Your task to perform on an android device: turn off javascript in the chrome app Image 0: 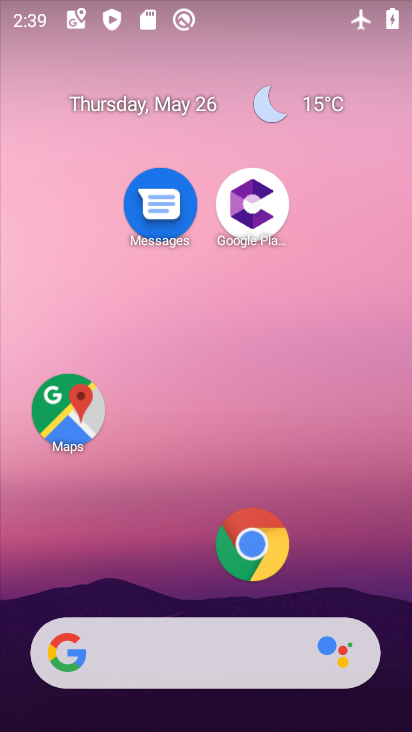
Step 0: click (271, 562)
Your task to perform on an android device: turn off javascript in the chrome app Image 1: 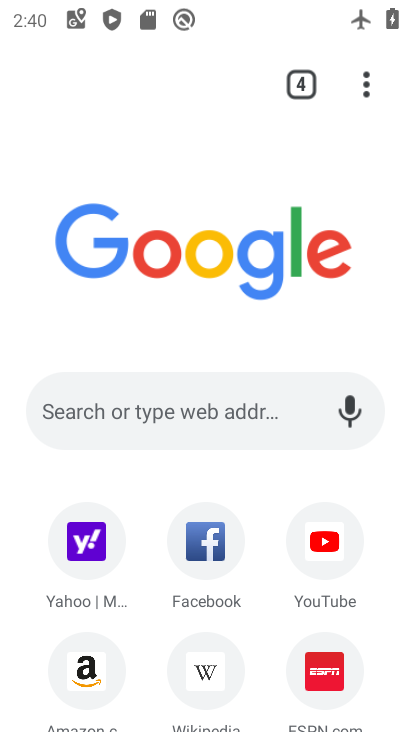
Step 1: click (385, 78)
Your task to perform on an android device: turn off javascript in the chrome app Image 2: 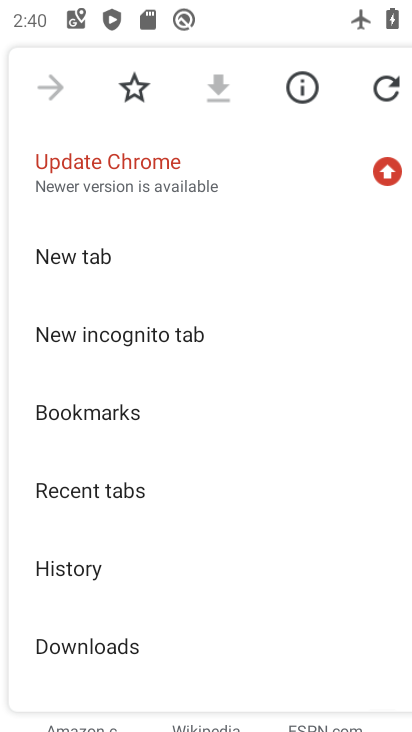
Step 2: drag from (123, 647) to (167, 223)
Your task to perform on an android device: turn off javascript in the chrome app Image 3: 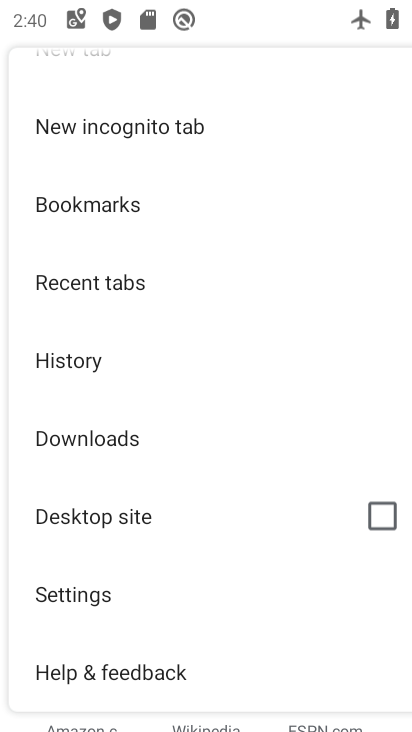
Step 3: click (80, 594)
Your task to perform on an android device: turn off javascript in the chrome app Image 4: 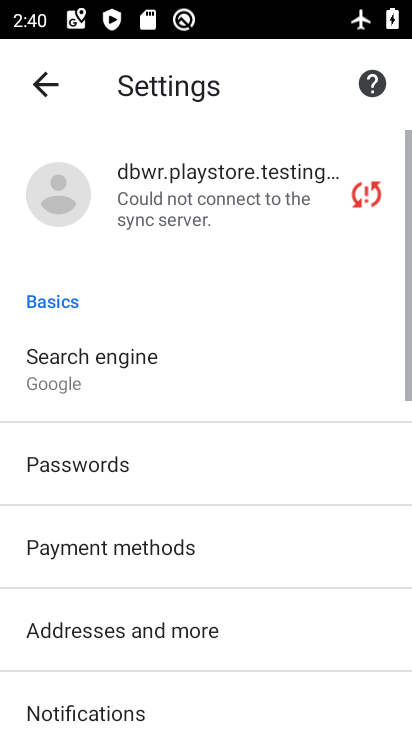
Step 4: drag from (80, 594) to (160, 143)
Your task to perform on an android device: turn off javascript in the chrome app Image 5: 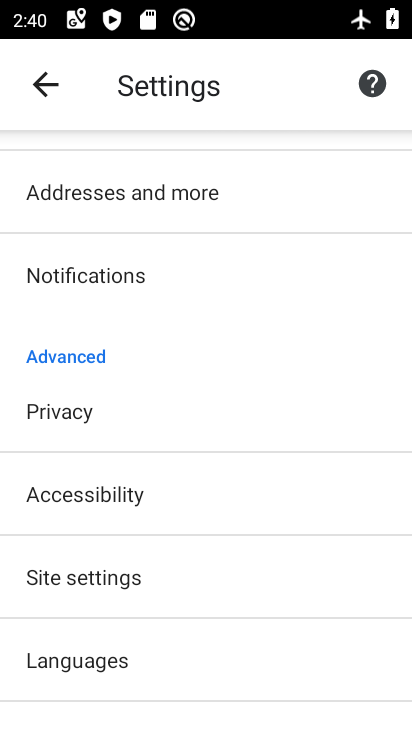
Step 5: click (92, 586)
Your task to perform on an android device: turn off javascript in the chrome app Image 6: 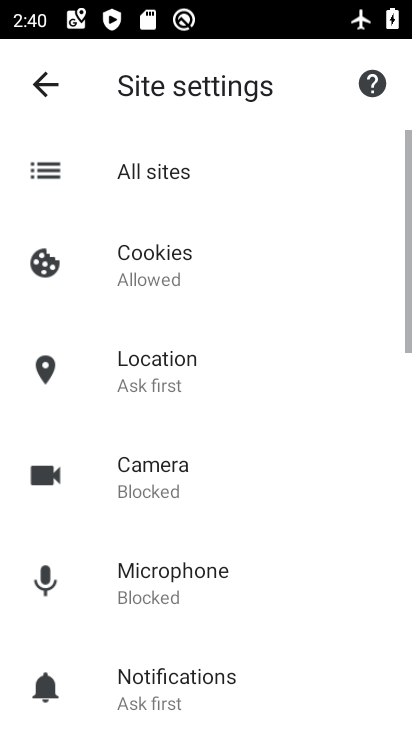
Step 6: drag from (92, 586) to (168, 221)
Your task to perform on an android device: turn off javascript in the chrome app Image 7: 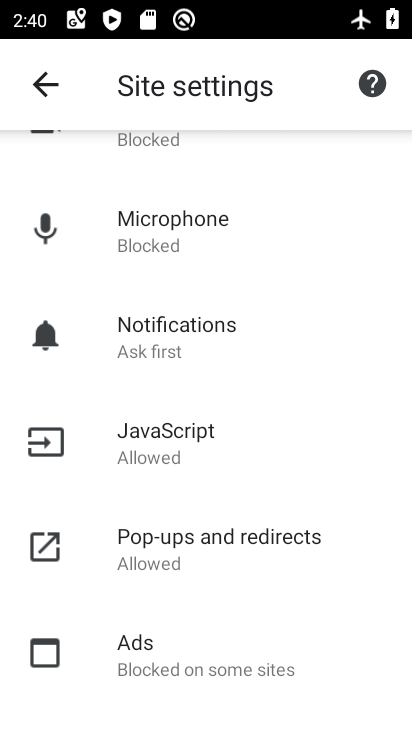
Step 7: click (102, 474)
Your task to perform on an android device: turn off javascript in the chrome app Image 8: 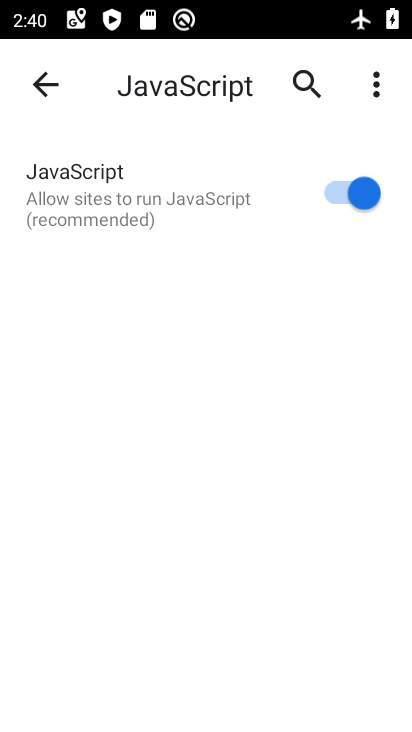
Step 8: click (349, 188)
Your task to perform on an android device: turn off javascript in the chrome app Image 9: 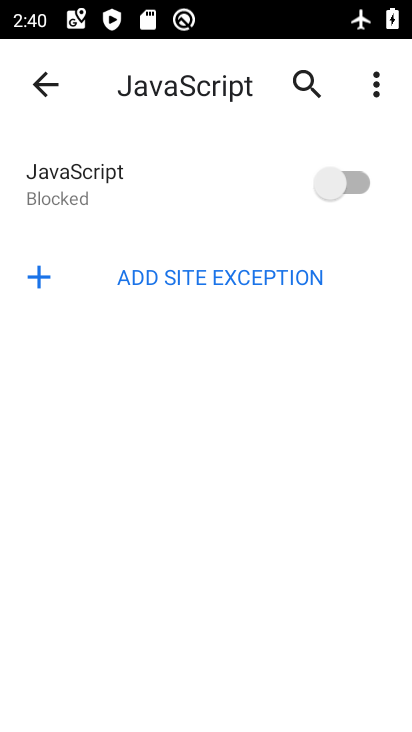
Step 9: task complete